Your task to perform on an android device: manage bookmarks in the chrome app Image 0: 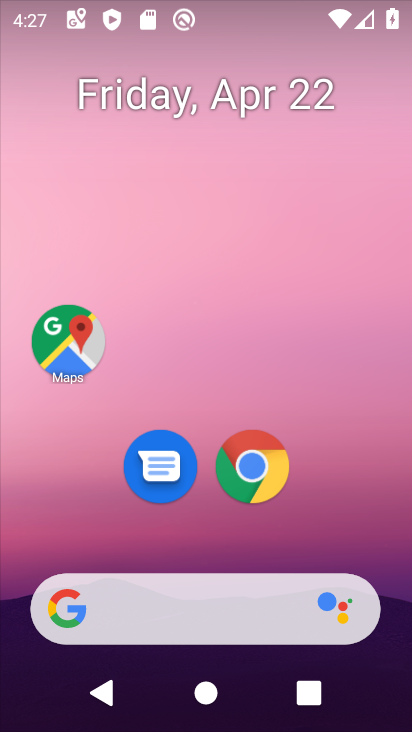
Step 0: click (252, 487)
Your task to perform on an android device: manage bookmarks in the chrome app Image 1: 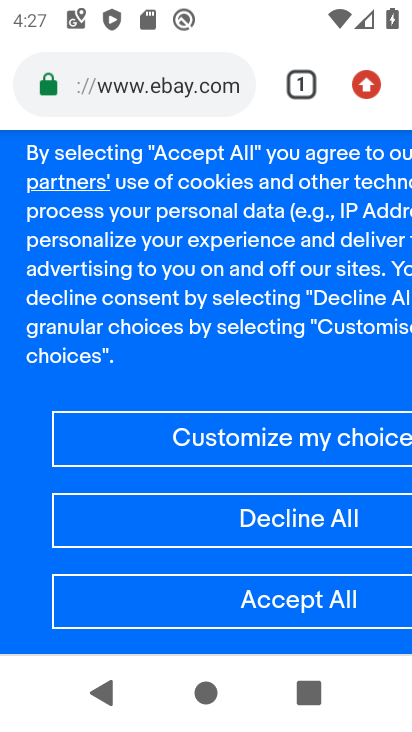
Step 1: click (365, 118)
Your task to perform on an android device: manage bookmarks in the chrome app Image 2: 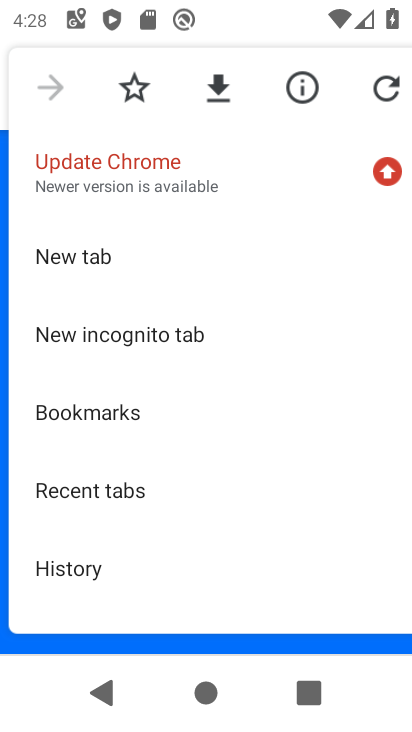
Step 2: click (220, 417)
Your task to perform on an android device: manage bookmarks in the chrome app Image 3: 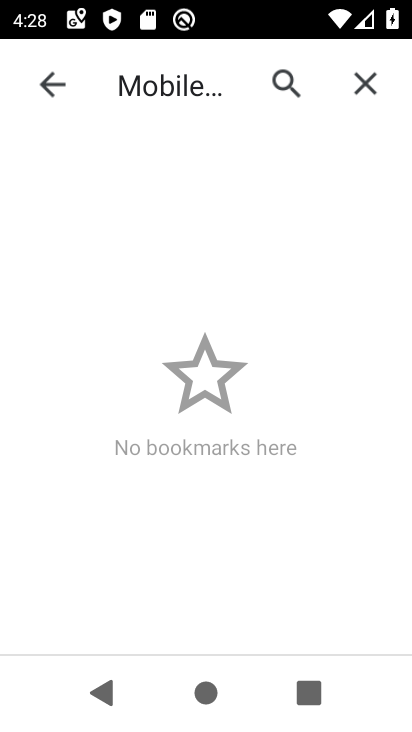
Step 3: task complete